Your task to perform on an android device: Open Reddit.com Image 0: 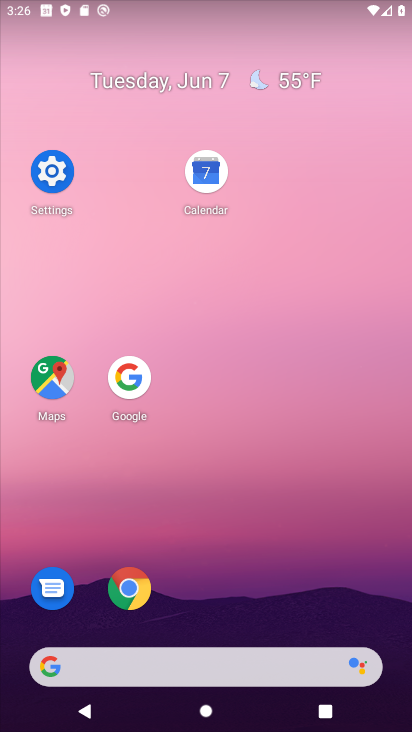
Step 0: click (130, 589)
Your task to perform on an android device: Open Reddit.com Image 1: 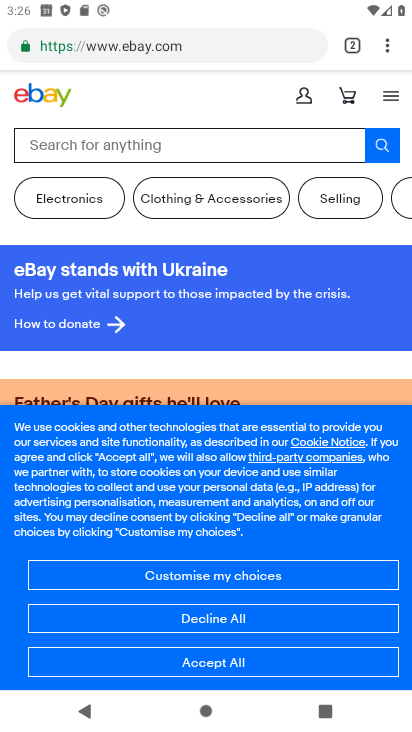
Step 1: click (353, 39)
Your task to perform on an android device: Open Reddit.com Image 2: 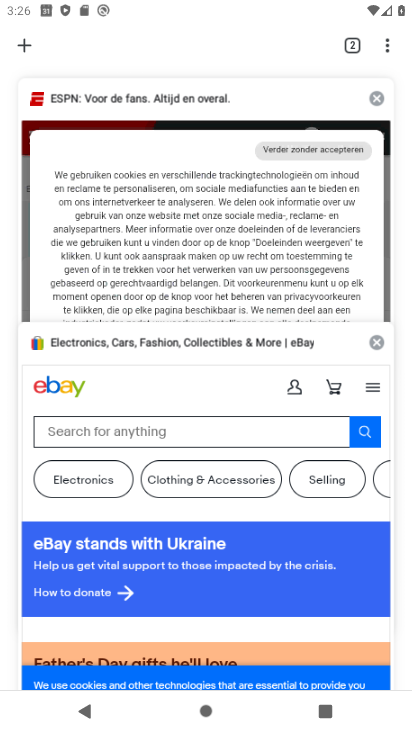
Step 2: click (26, 48)
Your task to perform on an android device: Open Reddit.com Image 3: 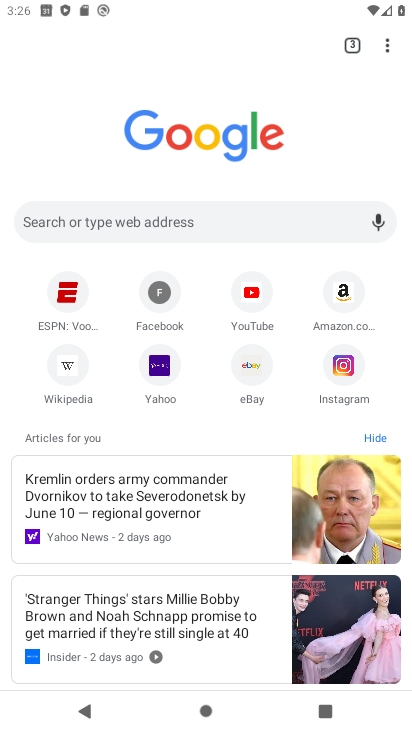
Step 3: click (213, 224)
Your task to perform on an android device: Open Reddit.com Image 4: 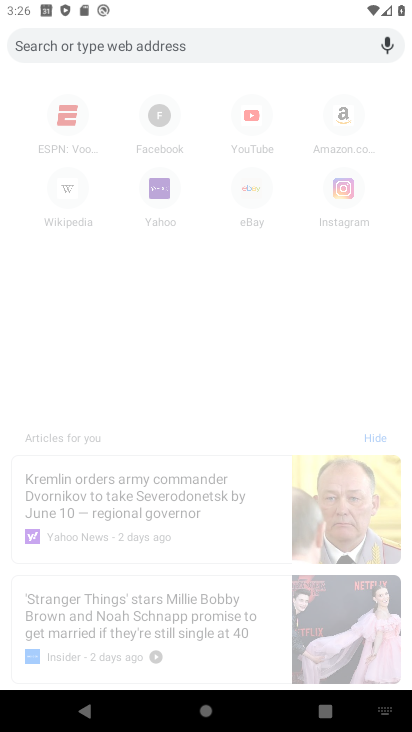
Step 4: type "reddit"
Your task to perform on an android device: Open Reddit.com Image 5: 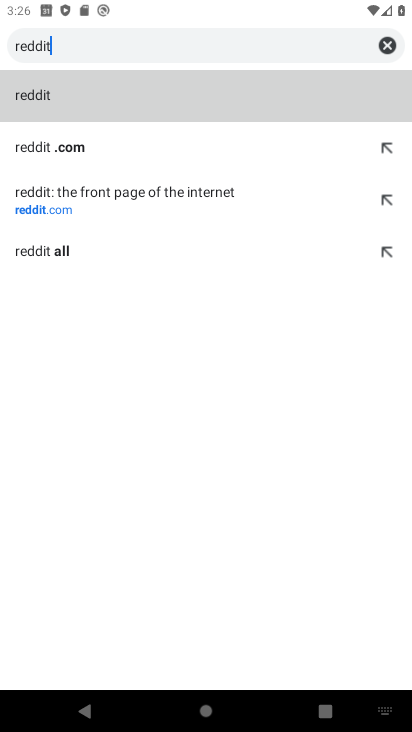
Step 5: click (93, 200)
Your task to perform on an android device: Open Reddit.com Image 6: 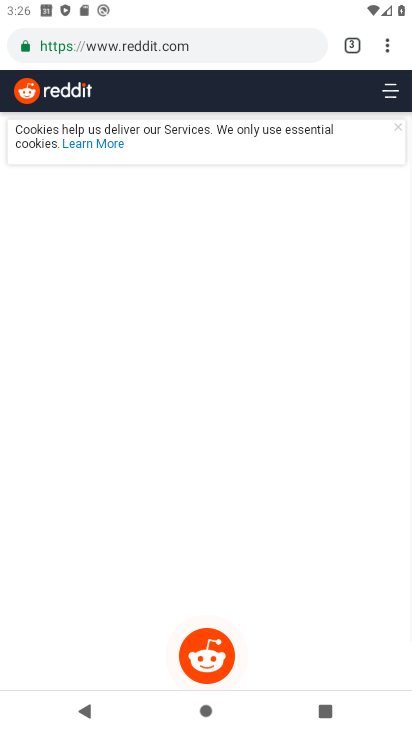
Step 6: task complete